Your task to perform on an android device: Show the shopping cart on costco.com. Search for "dell xps" on costco.com, select the first entry, add it to the cart, then select checkout. Image 0: 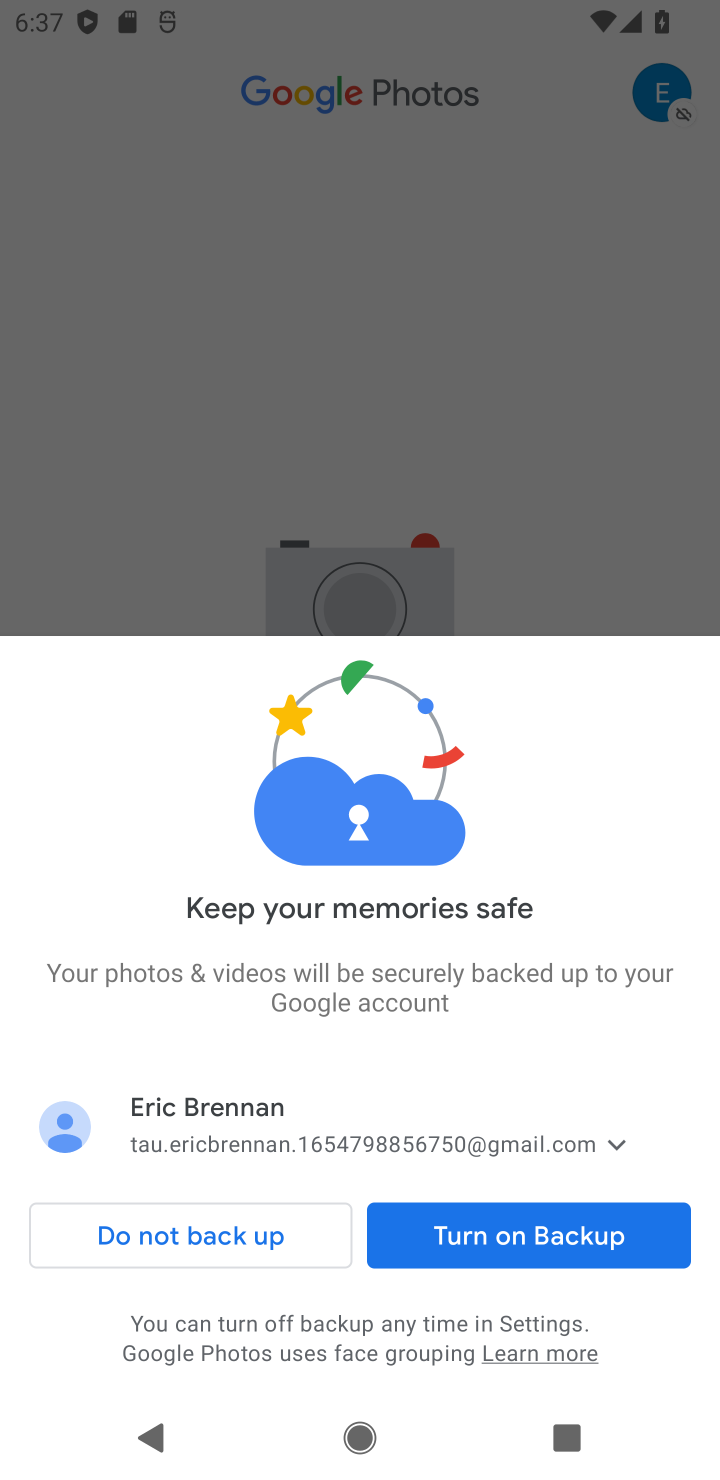
Step 0: press home button
Your task to perform on an android device: Show the shopping cart on costco.com. Search for "dell xps" on costco.com, select the first entry, add it to the cart, then select checkout. Image 1: 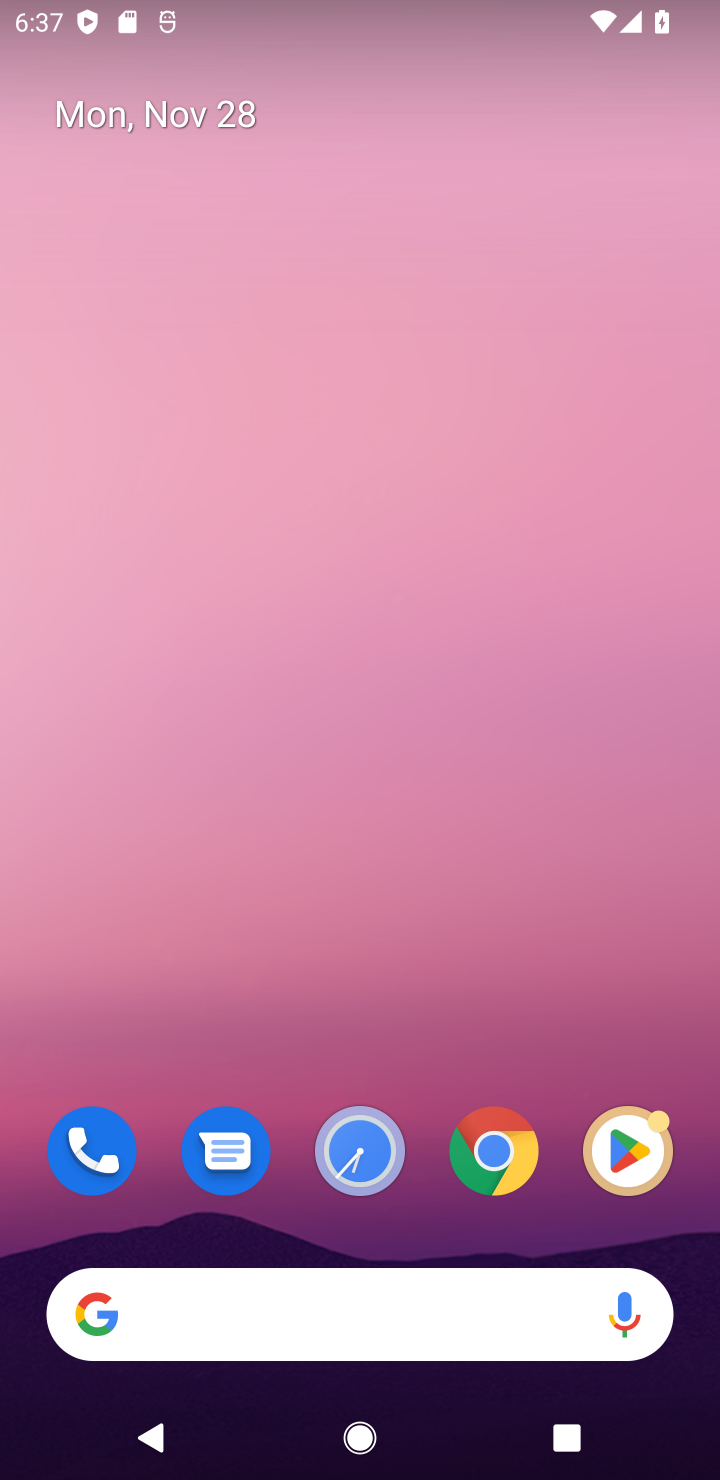
Step 1: click (401, 1284)
Your task to perform on an android device: Show the shopping cart on costco.com. Search for "dell xps" on costco.com, select the first entry, add it to the cart, then select checkout. Image 2: 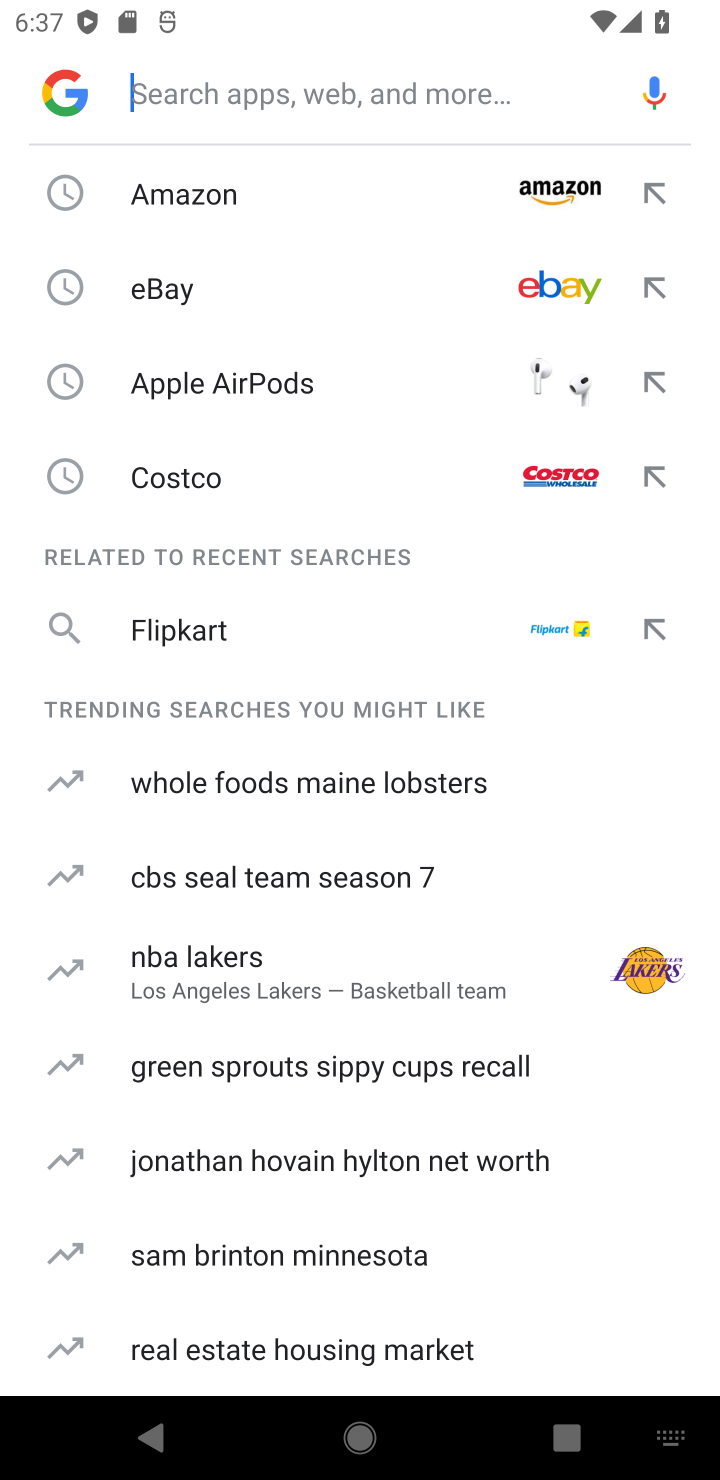
Step 2: type "costco.com"
Your task to perform on an android device: Show the shopping cart on costco.com. Search for "dell xps" on costco.com, select the first entry, add it to the cart, then select checkout. Image 3: 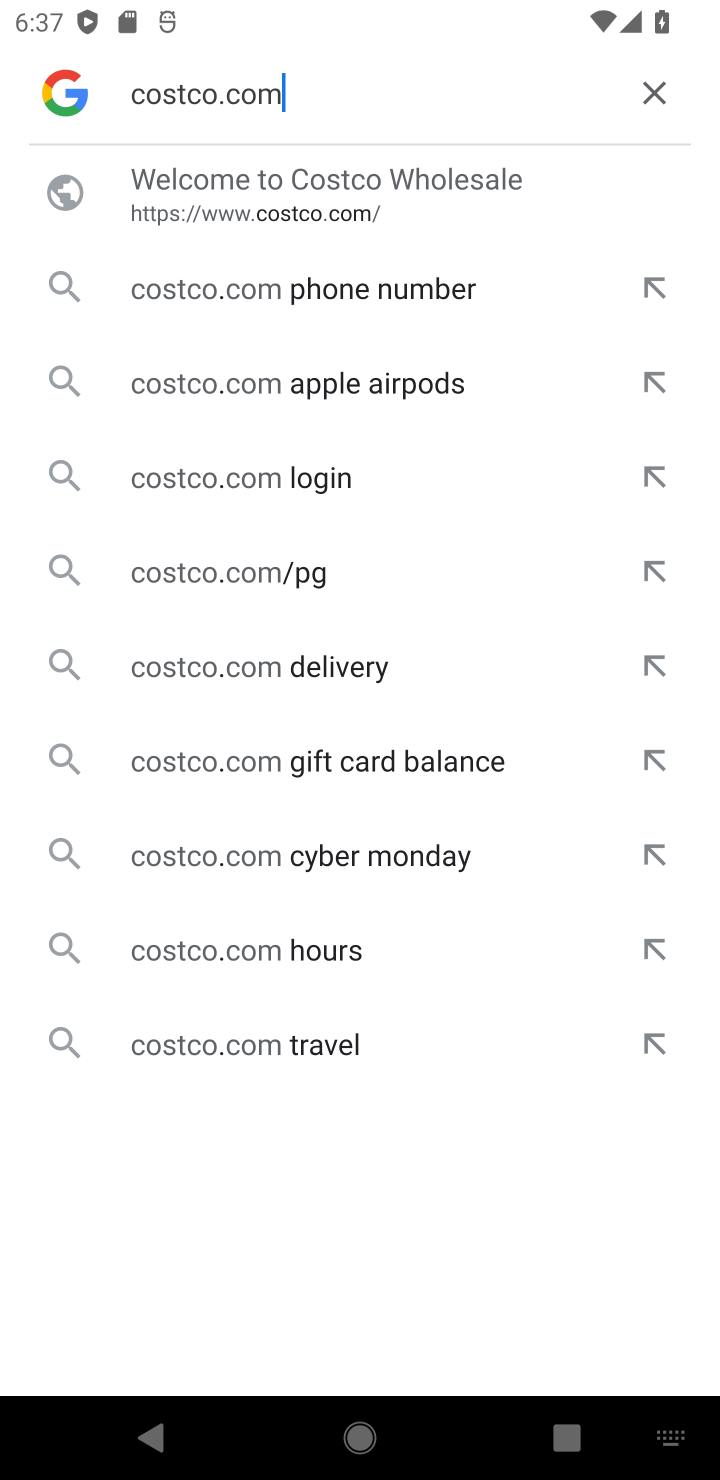
Step 3: click (175, 215)
Your task to perform on an android device: Show the shopping cart on costco.com. Search for "dell xps" on costco.com, select the first entry, add it to the cart, then select checkout. Image 4: 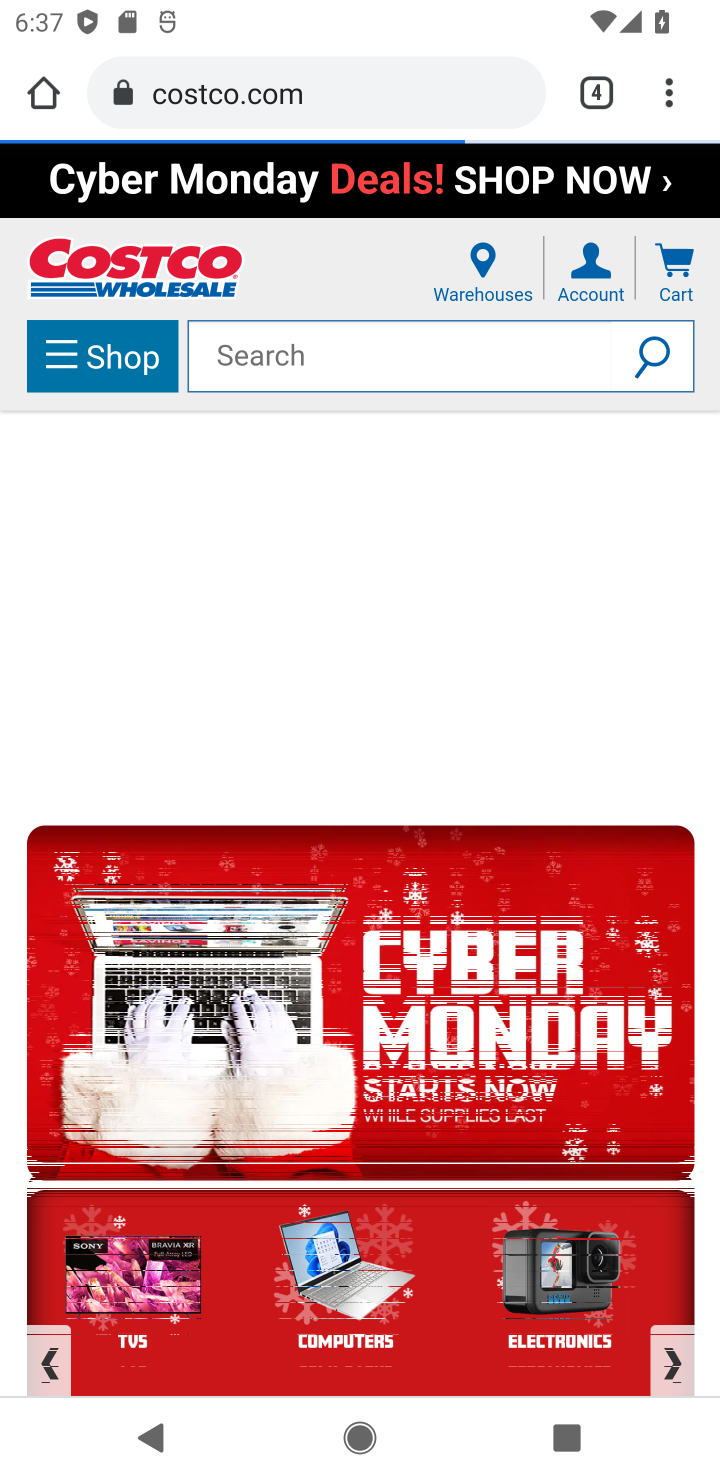
Step 4: click (264, 350)
Your task to perform on an android device: Show the shopping cart on costco.com. Search for "dell xps" on costco.com, select the first entry, add it to the cart, then select checkout. Image 5: 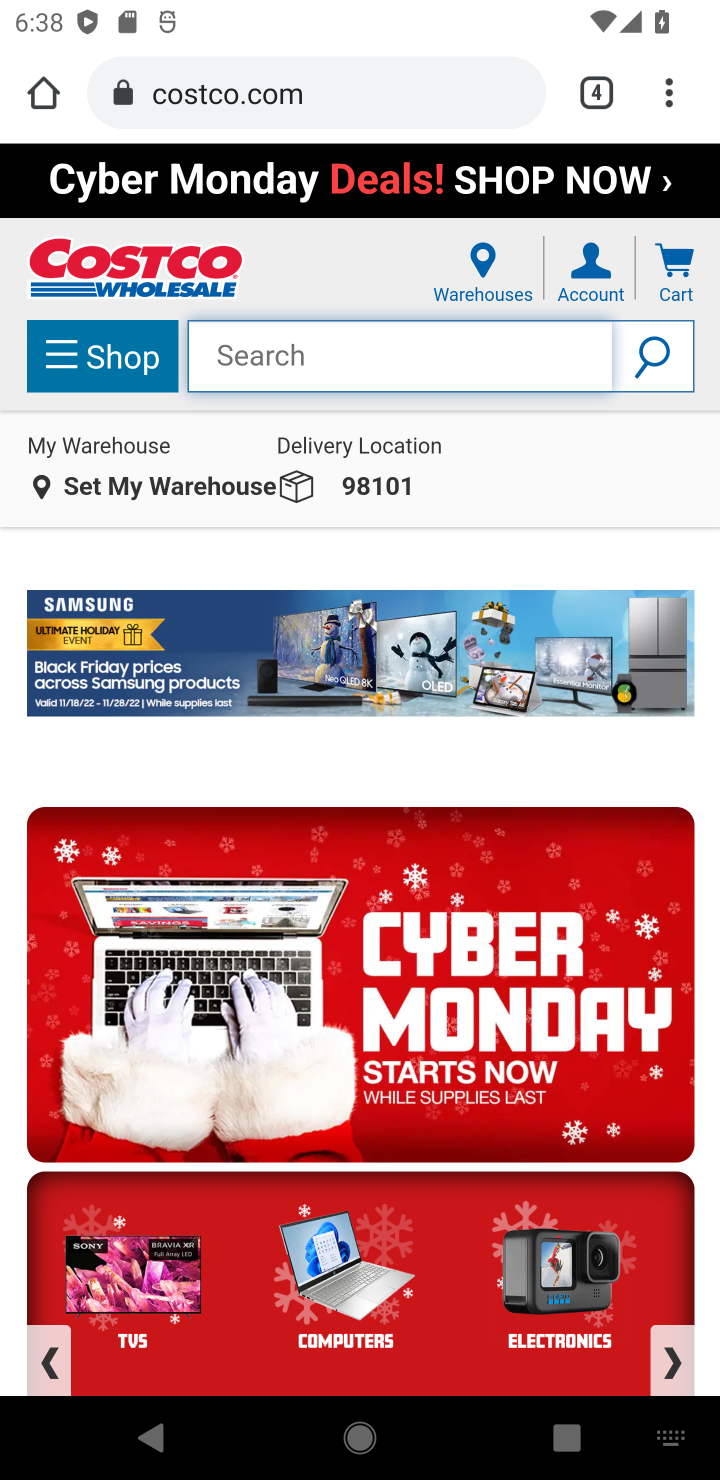
Step 5: type "dell xps"
Your task to perform on an android device: Show the shopping cart on costco.com. Search for "dell xps" on costco.com, select the first entry, add it to the cart, then select checkout. Image 6: 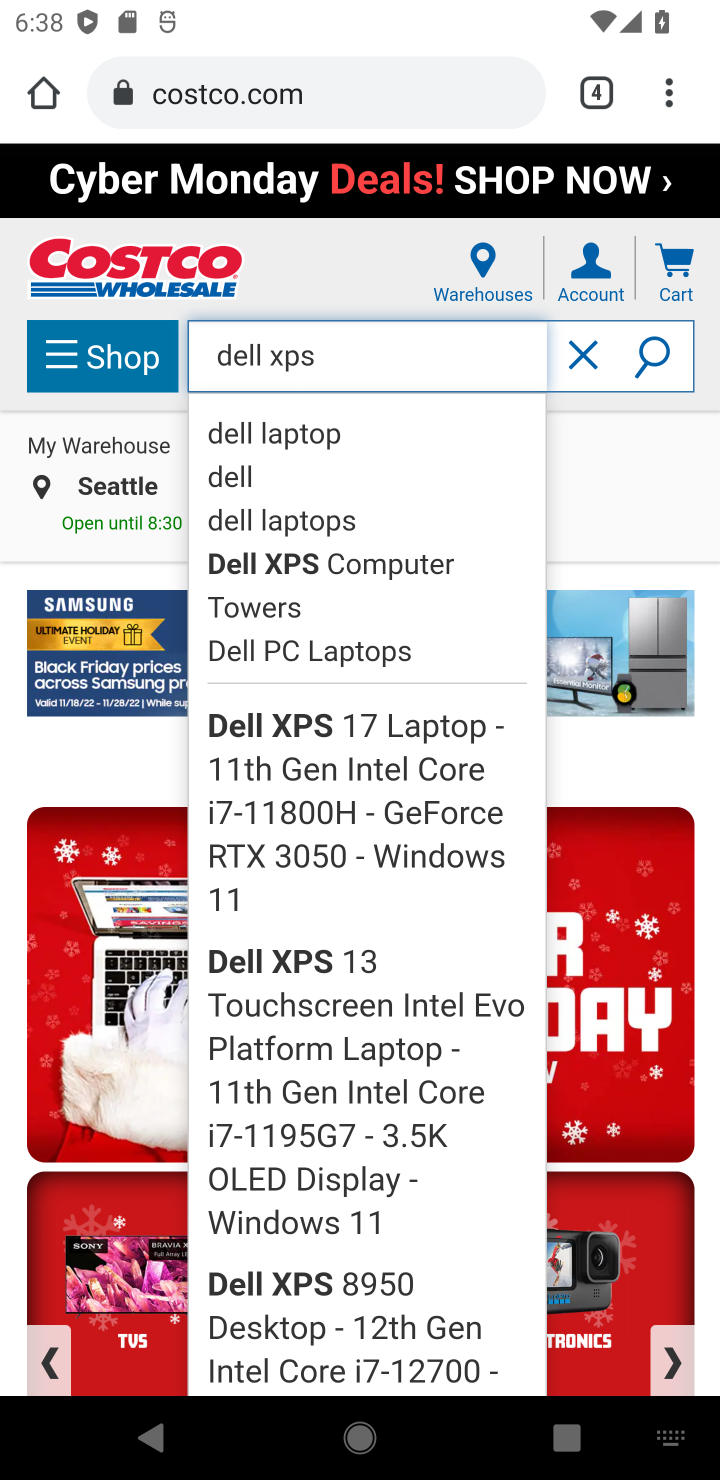
Step 6: click (639, 368)
Your task to perform on an android device: Show the shopping cart on costco.com. Search for "dell xps" on costco.com, select the first entry, add it to the cart, then select checkout. Image 7: 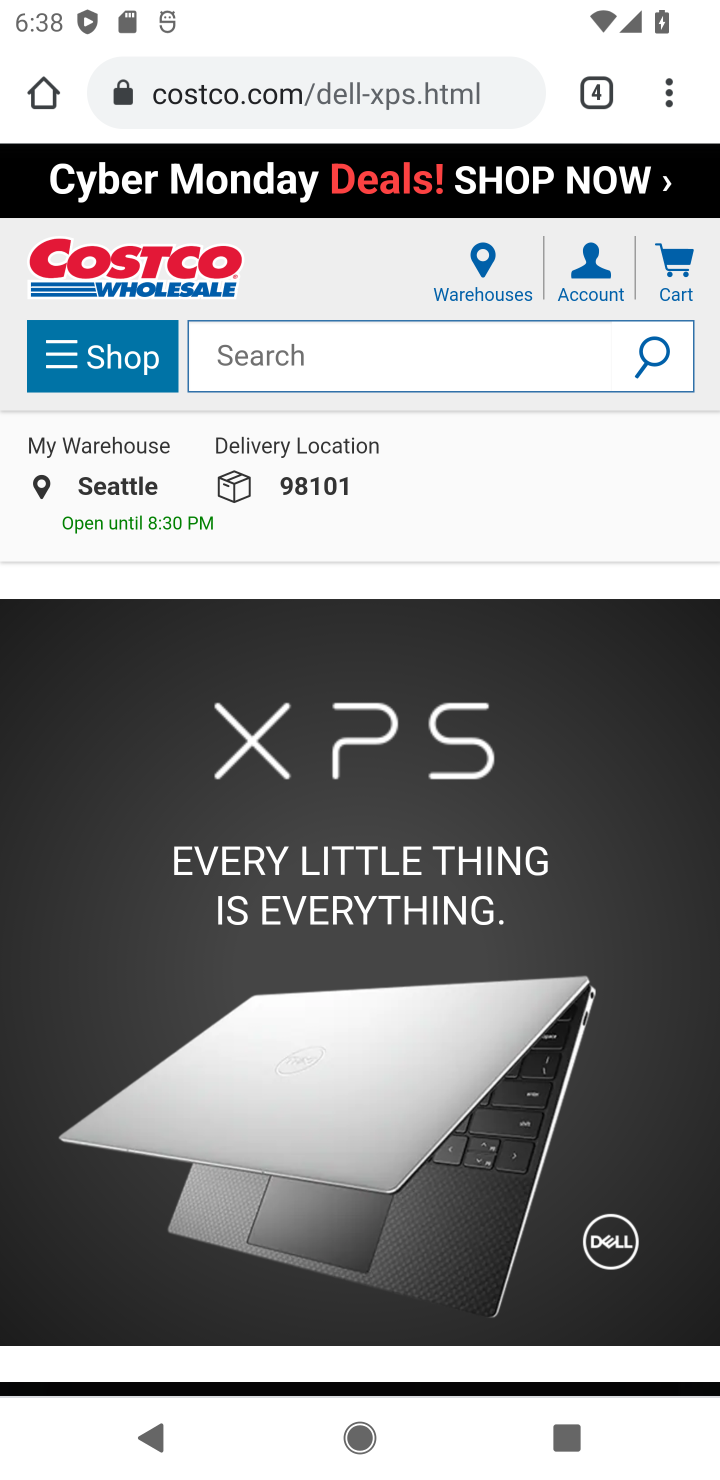
Step 7: task complete